Your task to perform on an android device: Open Wikipedia Image 0: 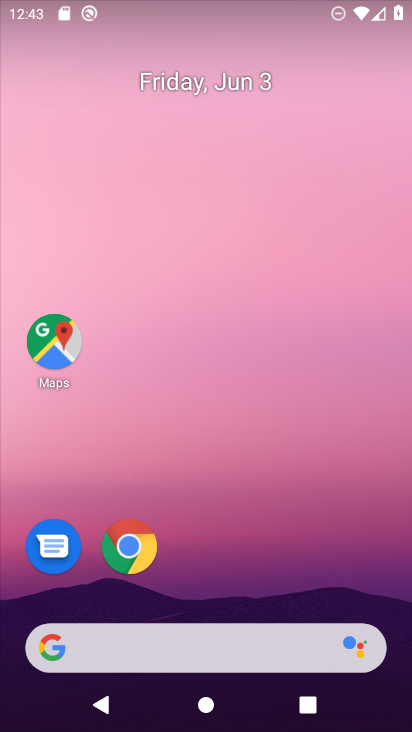
Step 0: click (129, 540)
Your task to perform on an android device: Open Wikipedia Image 1: 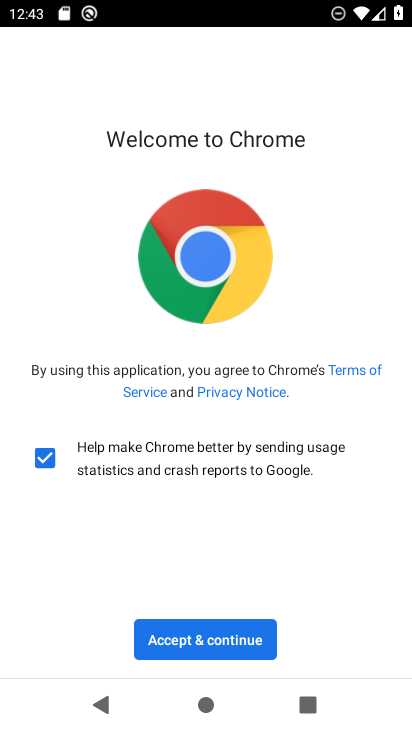
Step 1: click (186, 638)
Your task to perform on an android device: Open Wikipedia Image 2: 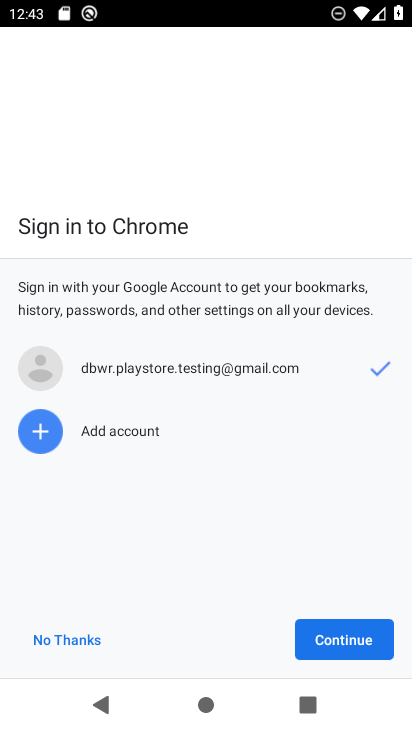
Step 2: click (338, 637)
Your task to perform on an android device: Open Wikipedia Image 3: 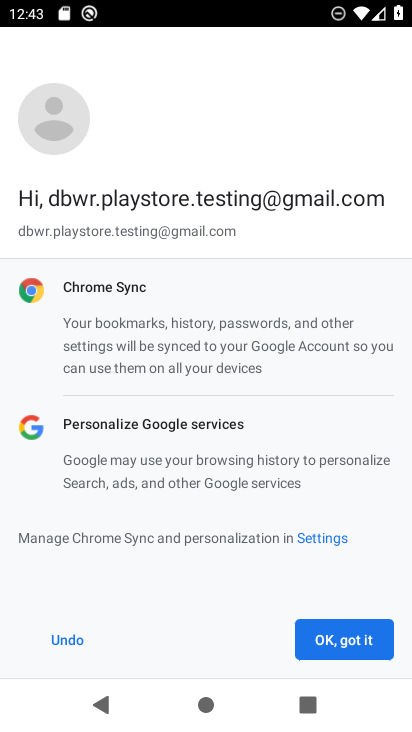
Step 3: click (338, 637)
Your task to perform on an android device: Open Wikipedia Image 4: 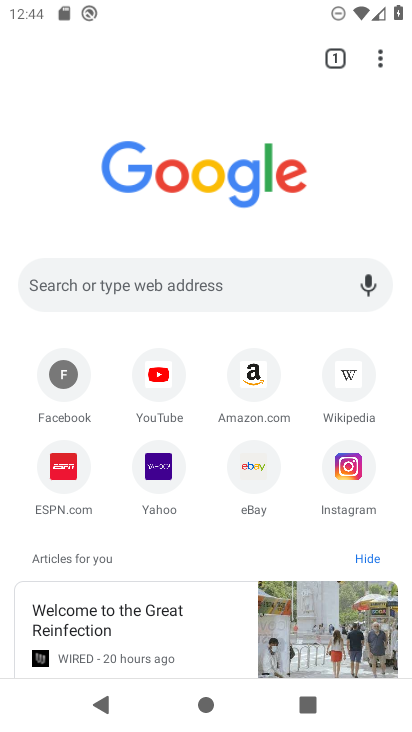
Step 4: click (348, 384)
Your task to perform on an android device: Open Wikipedia Image 5: 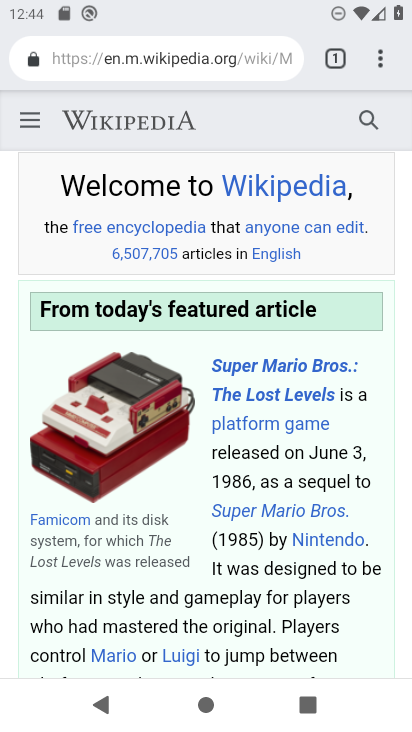
Step 5: task complete